Your task to perform on an android device: open app "Google Photos" (install if not already installed) Image 0: 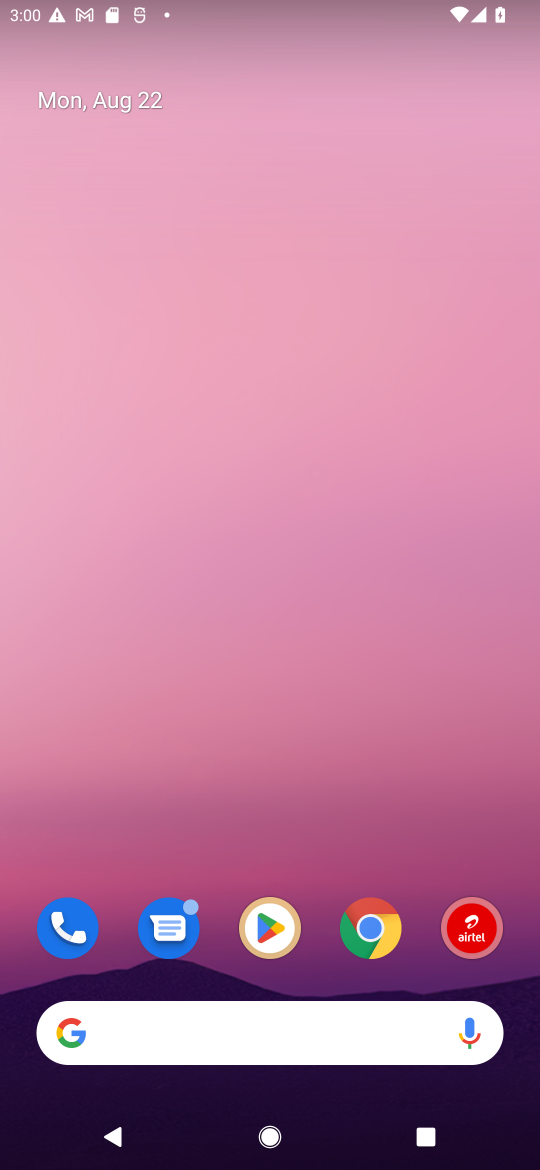
Step 0: click (276, 925)
Your task to perform on an android device: open app "Google Photos" (install if not already installed) Image 1: 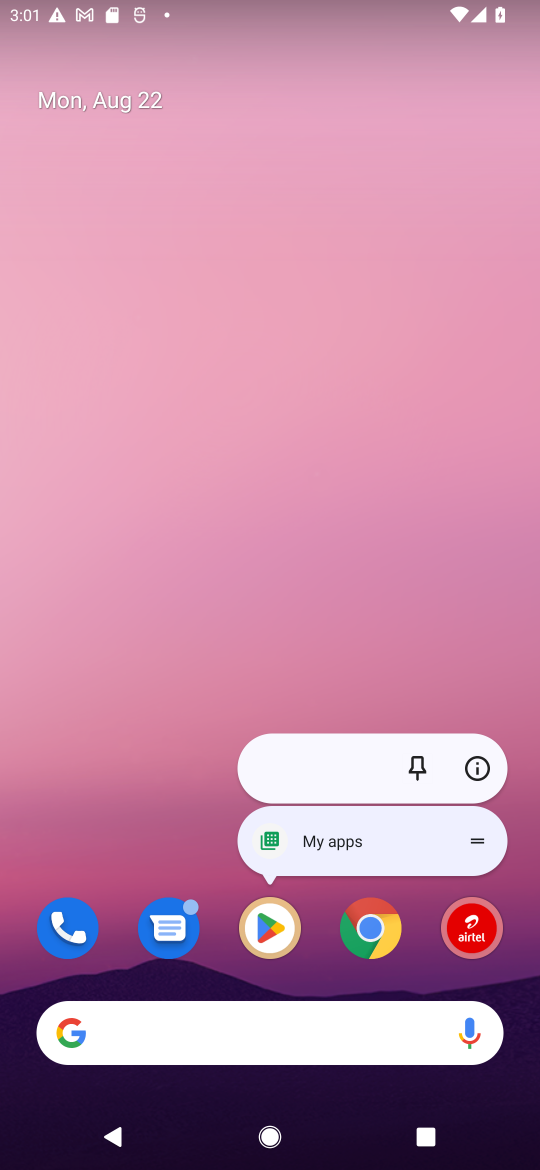
Step 1: click (287, 958)
Your task to perform on an android device: open app "Google Photos" (install if not already installed) Image 2: 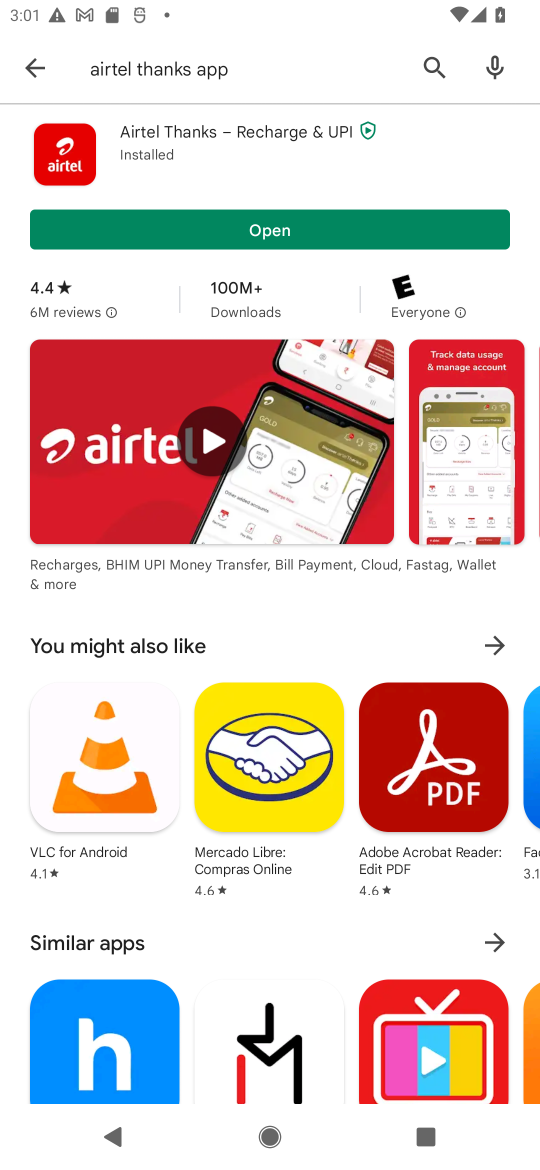
Step 2: click (203, 90)
Your task to perform on an android device: open app "Google Photos" (install if not already installed) Image 3: 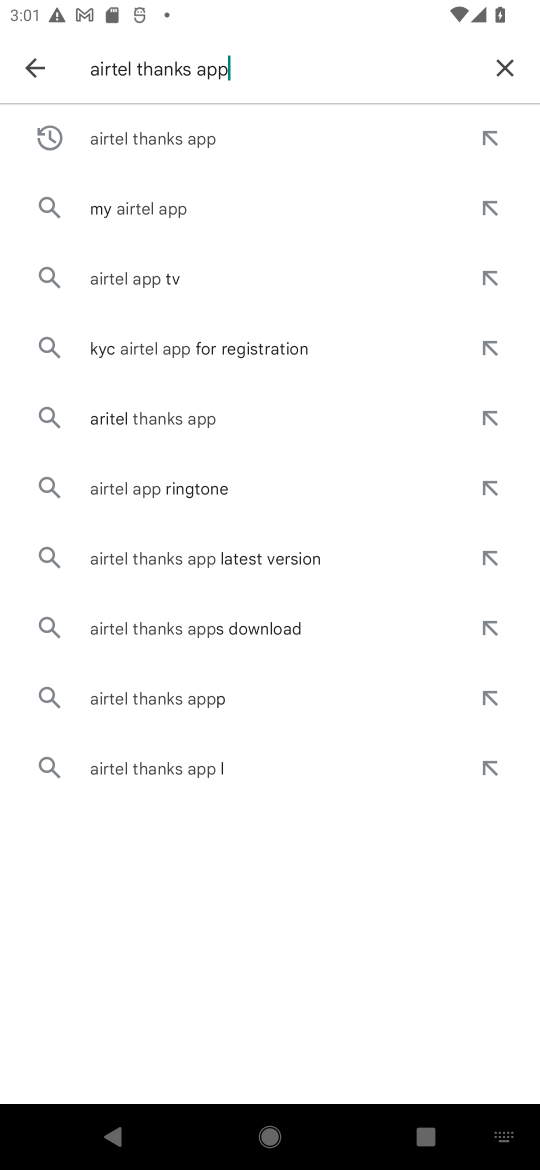
Step 3: click (489, 63)
Your task to perform on an android device: open app "Google Photos" (install if not already installed) Image 4: 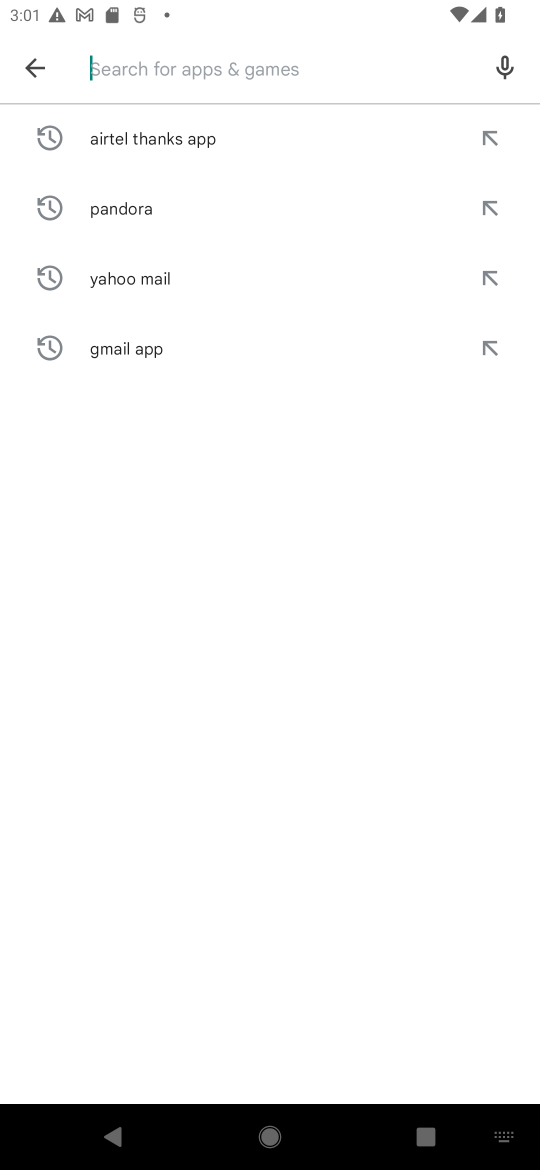
Step 4: type "google photos"
Your task to perform on an android device: open app "Google Photos" (install if not already installed) Image 5: 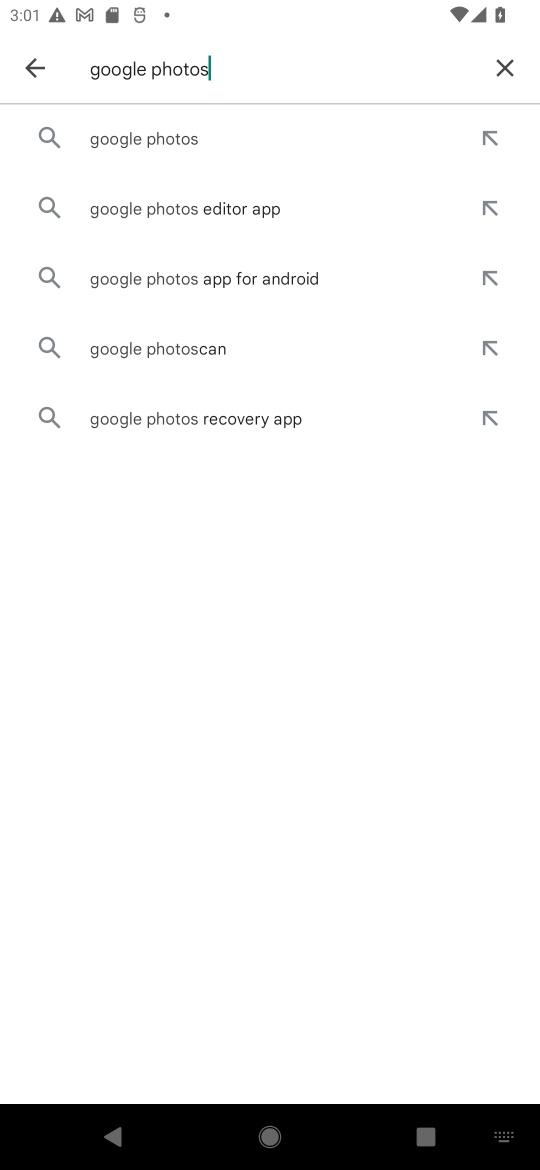
Step 5: click (155, 151)
Your task to perform on an android device: open app "Google Photos" (install if not already installed) Image 6: 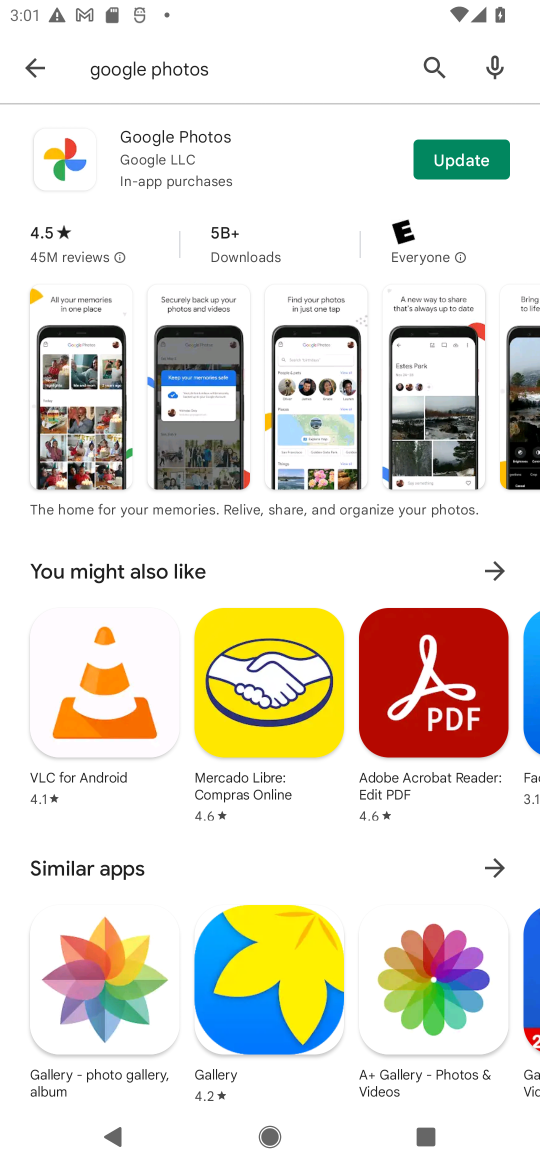
Step 6: click (452, 158)
Your task to perform on an android device: open app "Google Photos" (install if not already installed) Image 7: 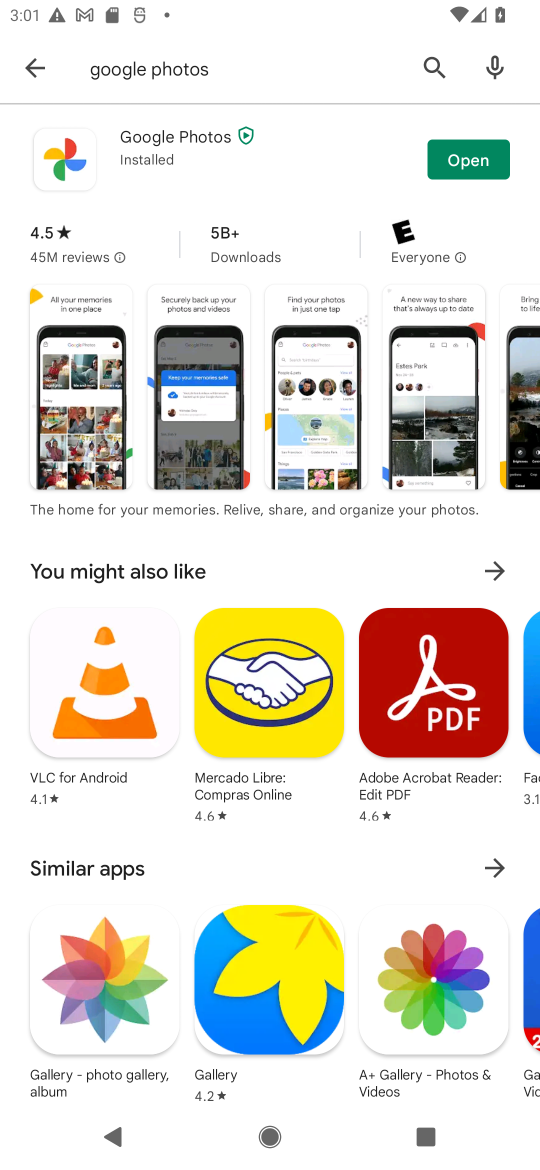
Step 7: click (461, 145)
Your task to perform on an android device: open app "Google Photos" (install if not already installed) Image 8: 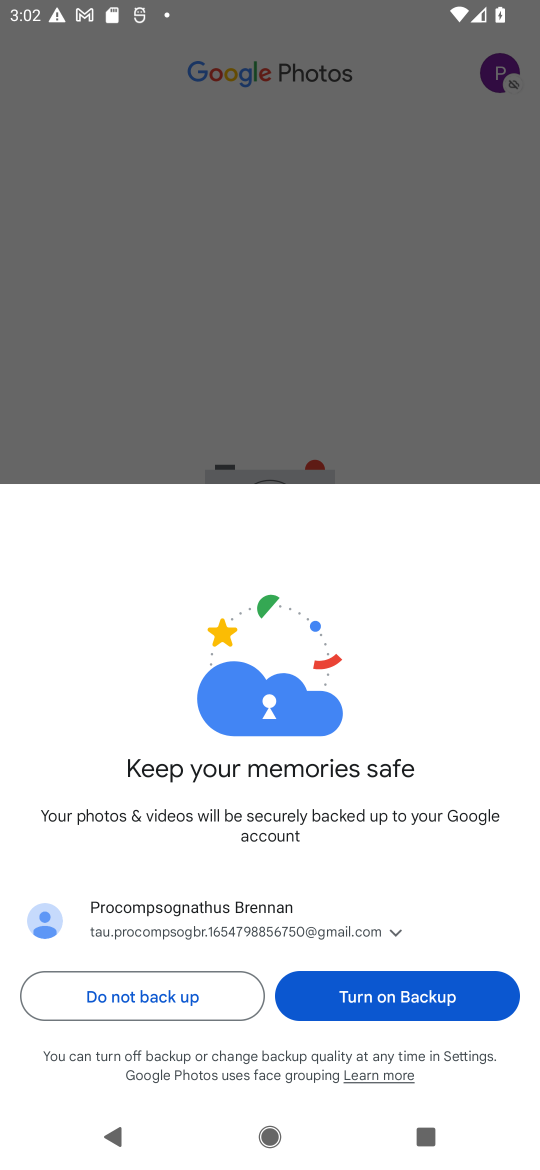
Step 8: click (230, 989)
Your task to perform on an android device: open app "Google Photos" (install if not already installed) Image 9: 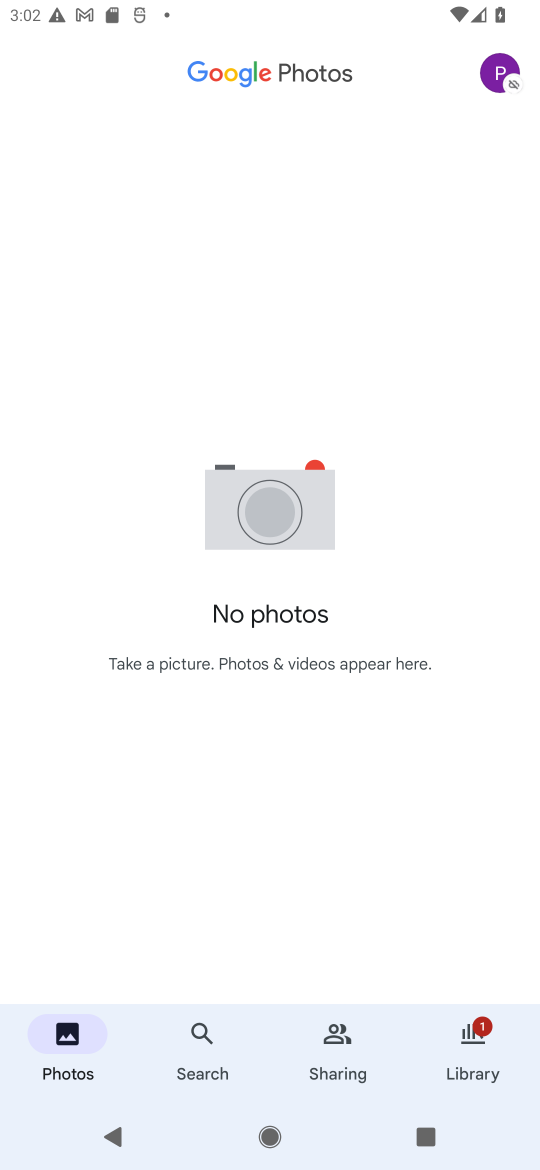
Step 9: task complete